Your task to perform on an android device: toggle show notifications on the lock screen Image 0: 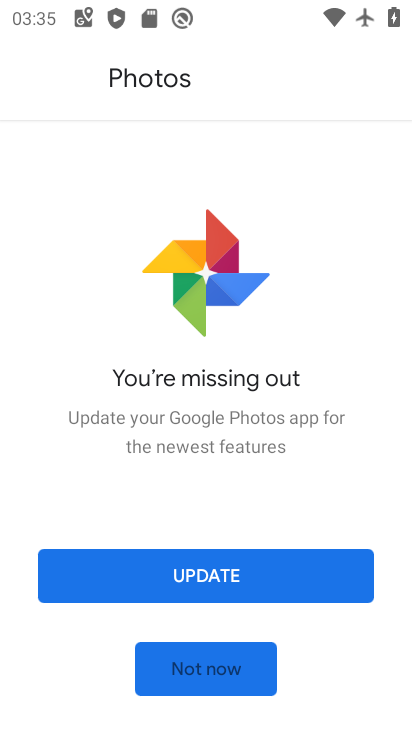
Step 0: press home button
Your task to perform on an android device: toggle show notifications on the lock screen Image 1: 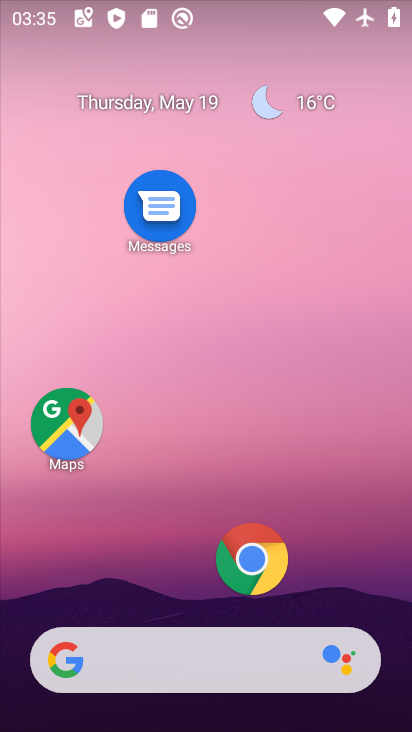
Step 1: drag from (176, 540) to (210, 222)
Your task to perform on an android device: toggle show notifications on the lock screen Image 2: 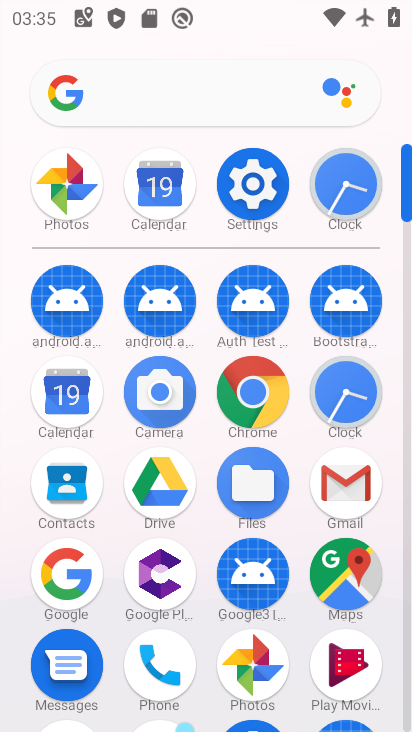
Step 2: click (248, 168)
Your task to perform on an android device: toggle show notifications on the lock screen Image 3: 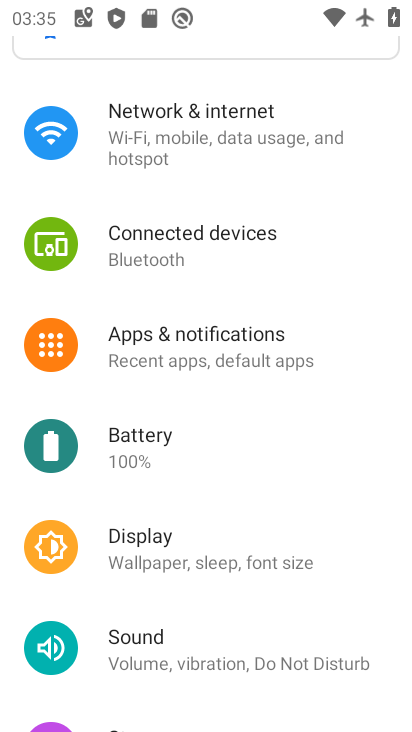
Step 3: click (224, 345)
Your task to perform on an android device: toggle show notifications on the lock screen Image 4: 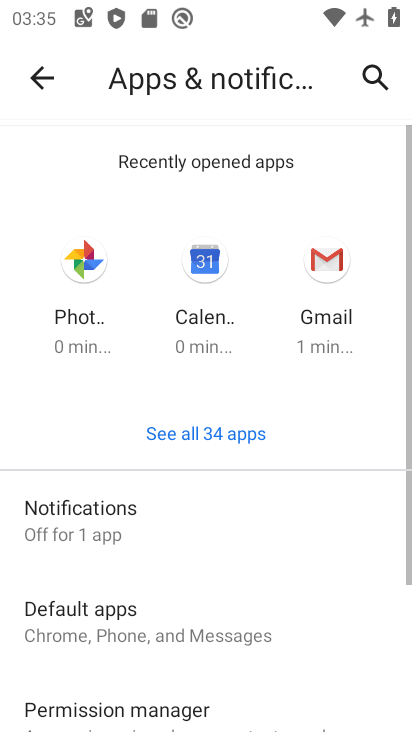
Step 4: click (141, 501)
Your task to perform on an android device: toggle show notifications on the lock screen Image 5: 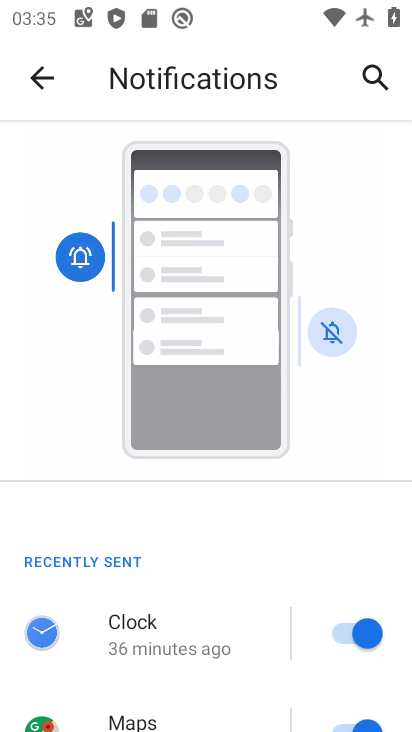
Step 5: drag from (196, 645) to (192, 306)
Your task to perform on an android device: toggle show notifications on the lock screen Image 6: 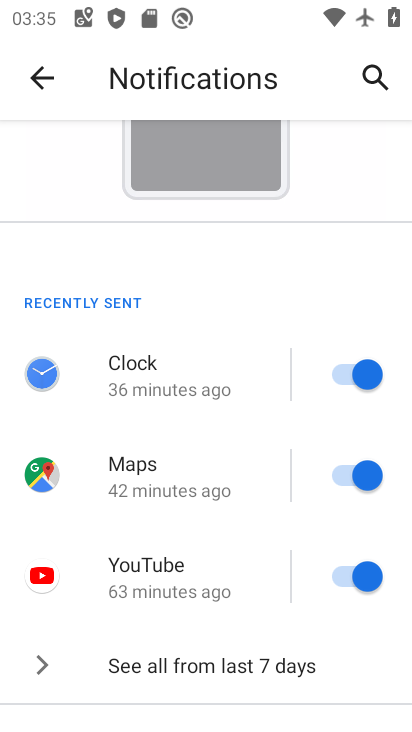
Step 6: drag from (230, 652) to (210, 491)
Your task to perform on an android device: toggle show notifications on the lock screen Image 7: 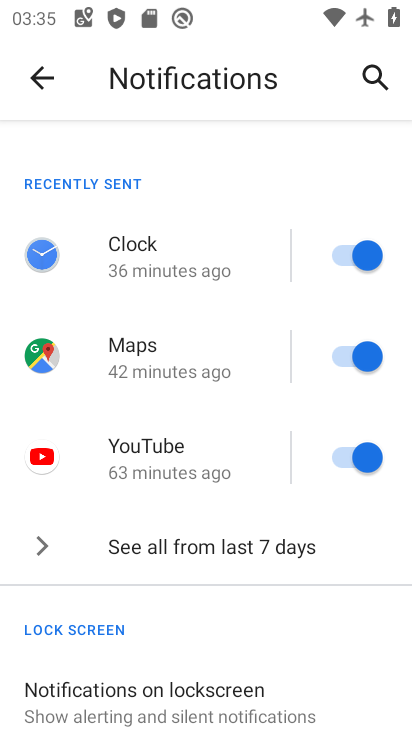
Step 7: drag from (231, 662) to (227, 423)
Your task to perform on an android device: toggle show notifications on the lock screen Image 8: 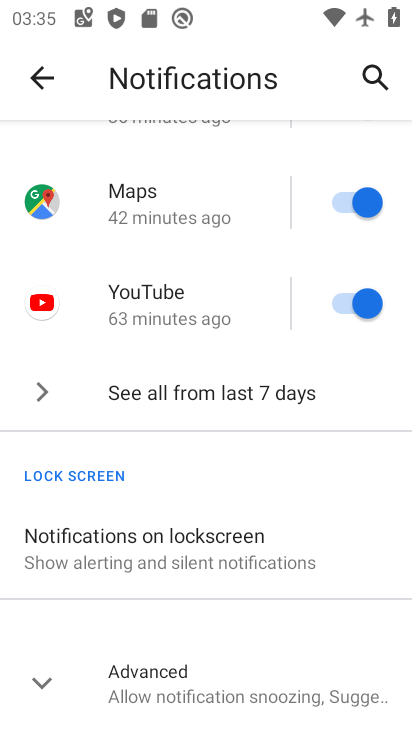
Step 8: click (194, 520)
Your task to perform on an android device: toggle show notifications on the lock screen Image 9: 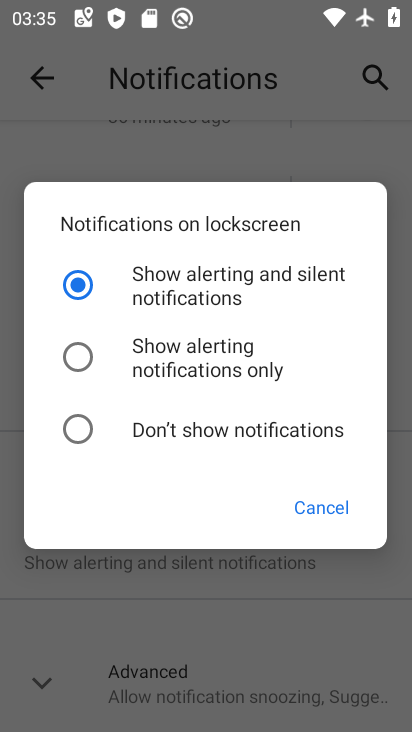
Step 9: click (154, 429)
Your task to perform on an android device: toggle show notifications on the lock screen Image 10: 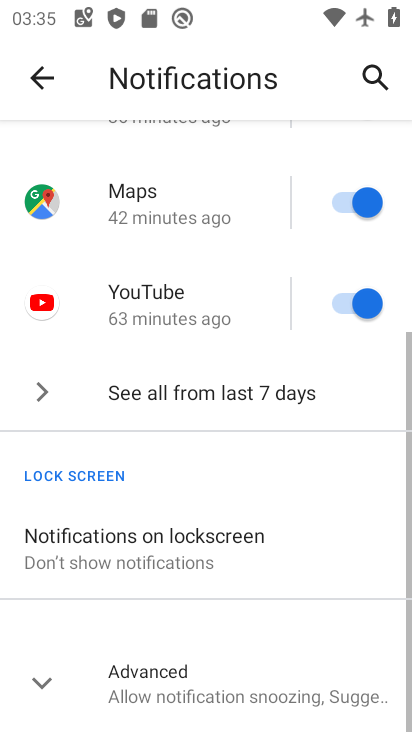
Step 10: task complete